Your task to perform on an android device: Search for seafood restaurants on Google Maps Image 0: 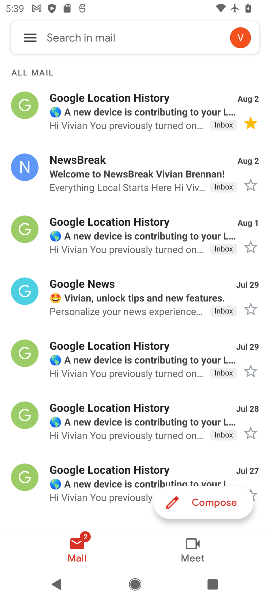
Step 0: press home button
Your task to perform on an android device: Search for seafood restaurants on Google Maps Image 1: 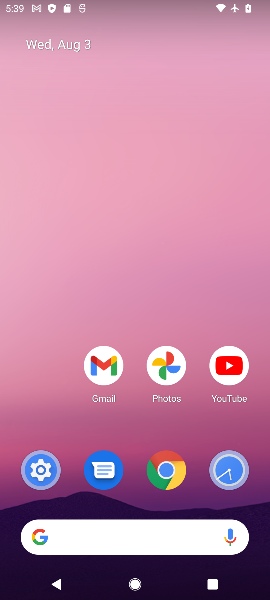
Step 1: drag from (66, 398) to (150, 5)
Your task to perform on an android device: Search for seafood restaurants on Google Maps Image 2: 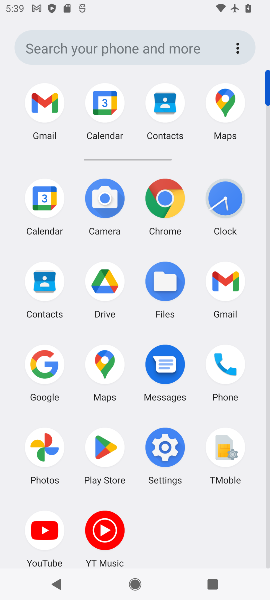
Step 2: click (104, 359)
Your task to perform on an android device: Search for seafood restaurants on Google Maps Image 3: 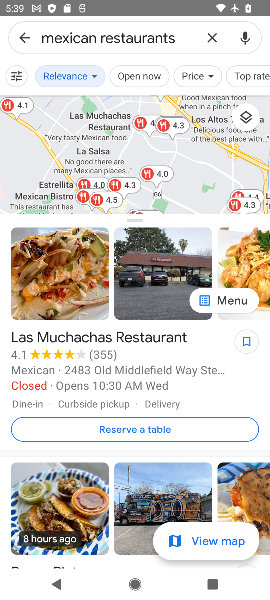
Step 3: click (130, 31)
Your task to perform on an android device: Search for seafood restaurants on Google Maps Image 4: 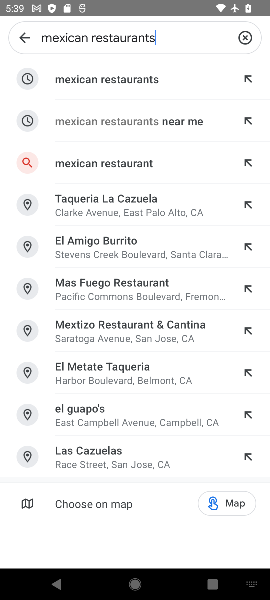
Step 4: click (245, 36)
Your task to perform on an android device: Search for seafood restaurants on Google Maps Image 5: 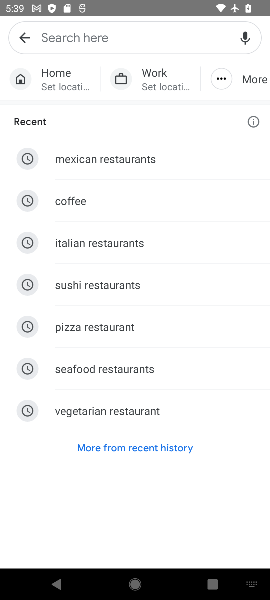
Step 5: click (133, 365)
Your task to perform on an android device: Search for seafood restaurants on Google Maps Image 6: 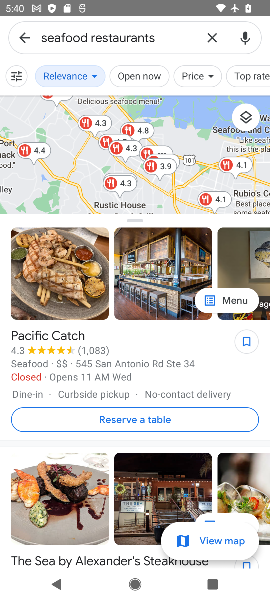
Step 6: task complete